Your task to perform on an android device: see tabs open on other devices in the chrome app Image 0: 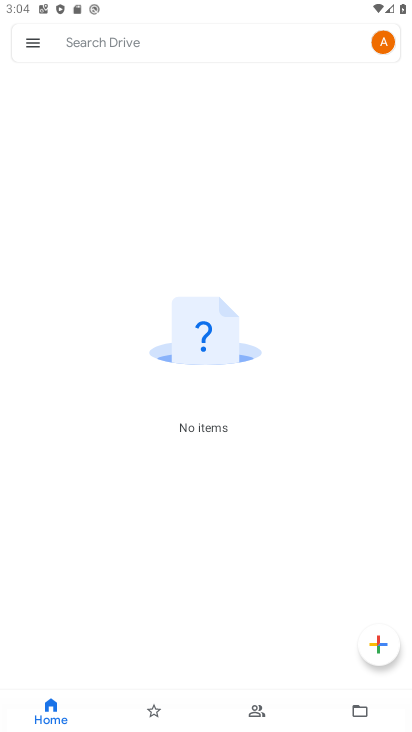
Step 0: press home button
Your task to perform on an android device: see tabs open on other devices in the chrome app Image 1: 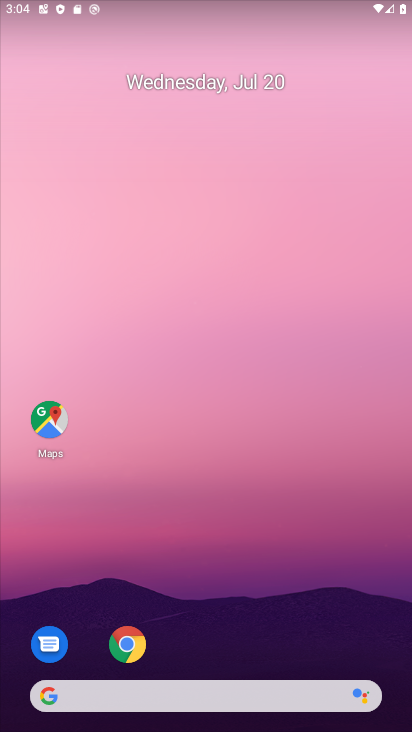
Step 1: click (135, 656)
Your task to perform on an android device: see tabs open on other devices in the chrome app Image 2: 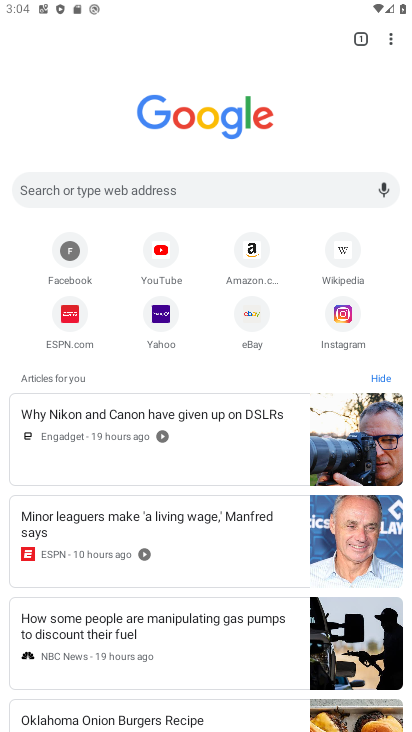
Step 2: click (386, 30)
Your task to perform on an android device: see tabs open on other devices in the chrome app Image 3: 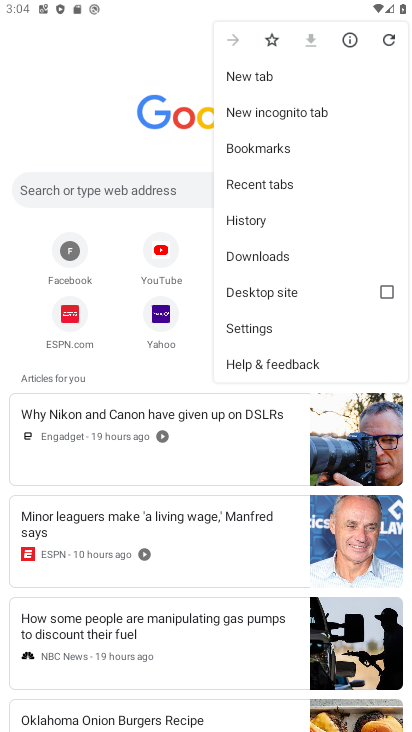
Step 3: click (270, 193)
Your task to perform on an android device: see tabs open on other devices in the chrome app Image 4: 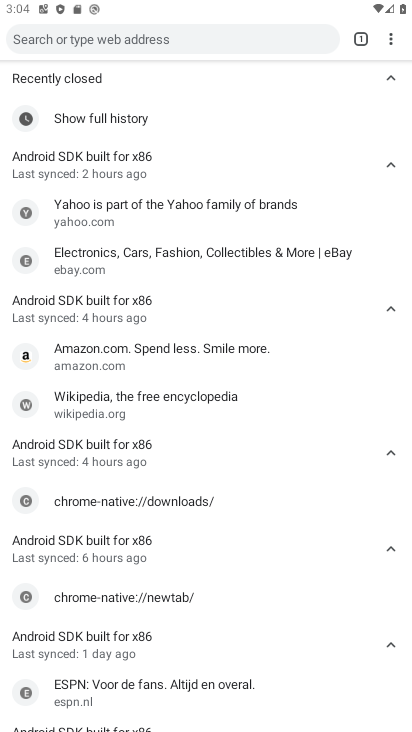
Step 4: task complete